Your task to perform on an android device: Go to Yahoo.com Image 0: 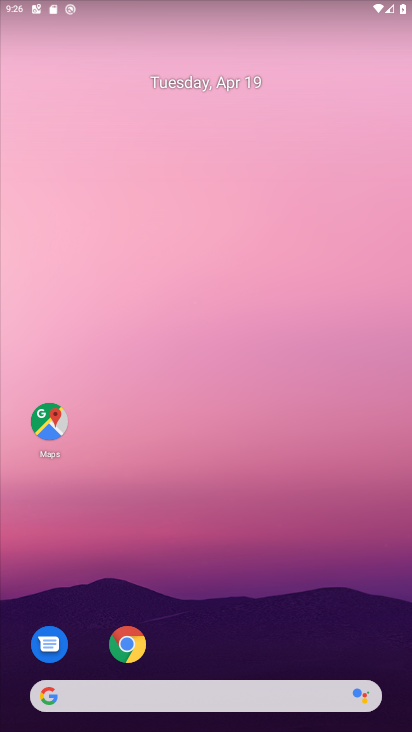
Step 0: drag from (263, 644) to (257, 35)
Your task to perform on an android device: Go to Yahoo.com Image 1: 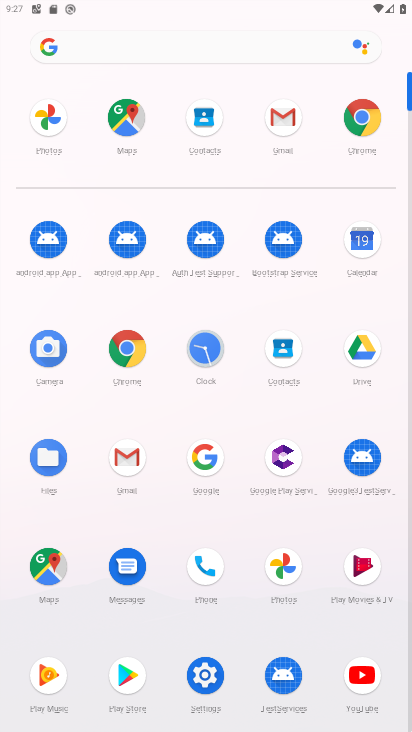
Step 1: click (134, 342)
Your task to perform on an android device: Go to Yahoo.com Image 2: 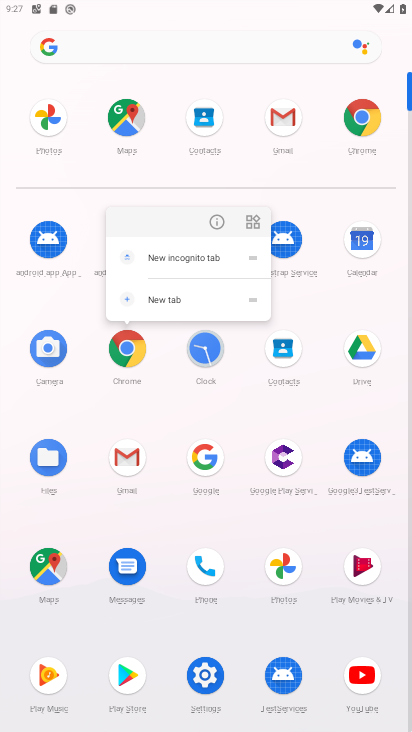
Step 2: click (133, 349)
Your task to perform on an android device: Go to Yahoo.com Image 3: 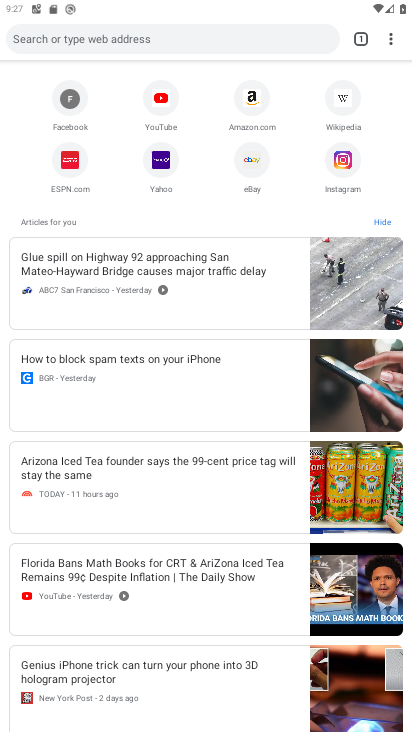
Step 3: click (156, 36)
Your task to perform on an android device: Go to Yahoo.com Image 4: 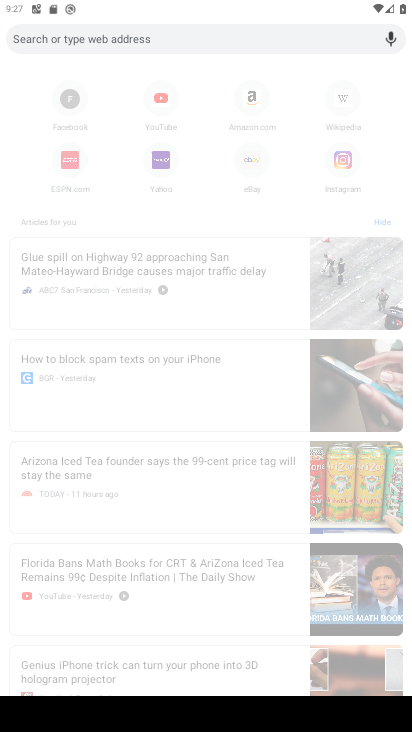
Step 4: type "yahoo.com"
Your task to perform on an android device: Go to Yahoo.com Image 5: 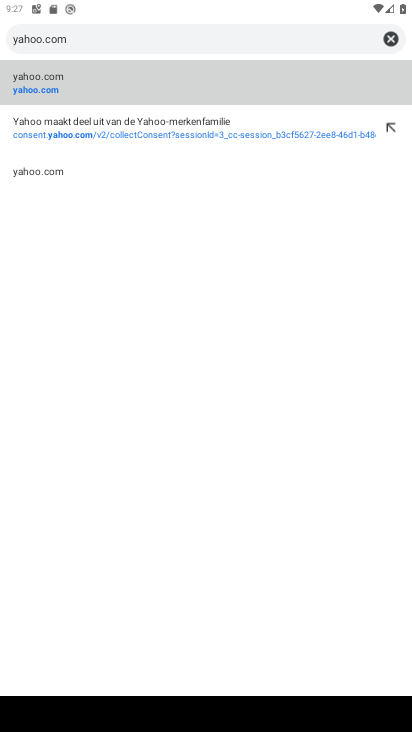
Step 5: click (72, 83)
Your task to perform on an android device: Go to Yahoo.com Image 6: 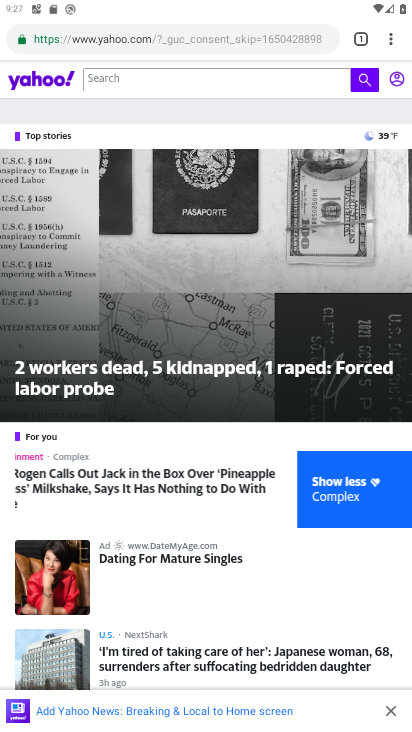
Step 6: task complete